Your task to perform on an android device: Turn on the flashlight Image 0: 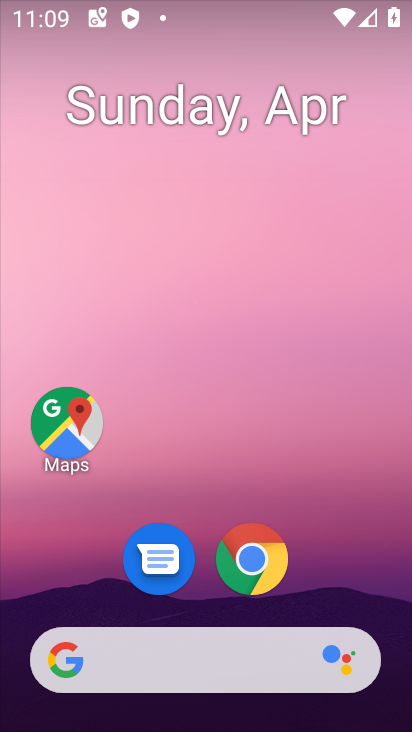
Step 0: drag from (333, 575) to (332, 31)
Your task to perform on an android device: Turn on the flashlight Image 1: 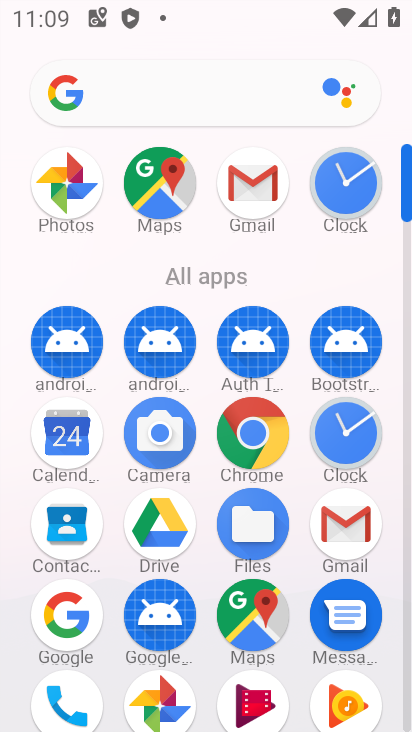
Step 1: drag from (111, 648) to (177, 309)
Your task to perform on an android device: Turn on the flashlight Image 2: 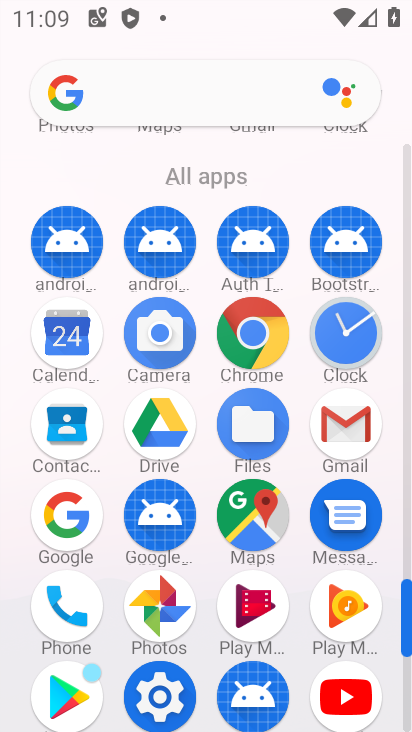
Step 2: click (149, 688)
Your task to perform on an android device: Turn on the flashlight Image 3: 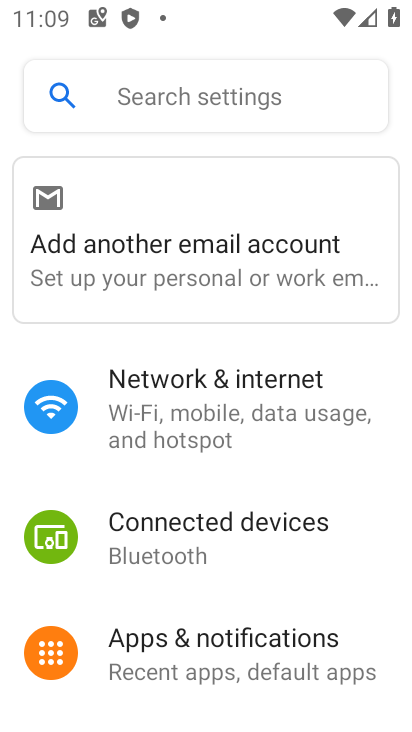
Step 3: task complete